Your task to perform on an android device: set an alarm Image 0: 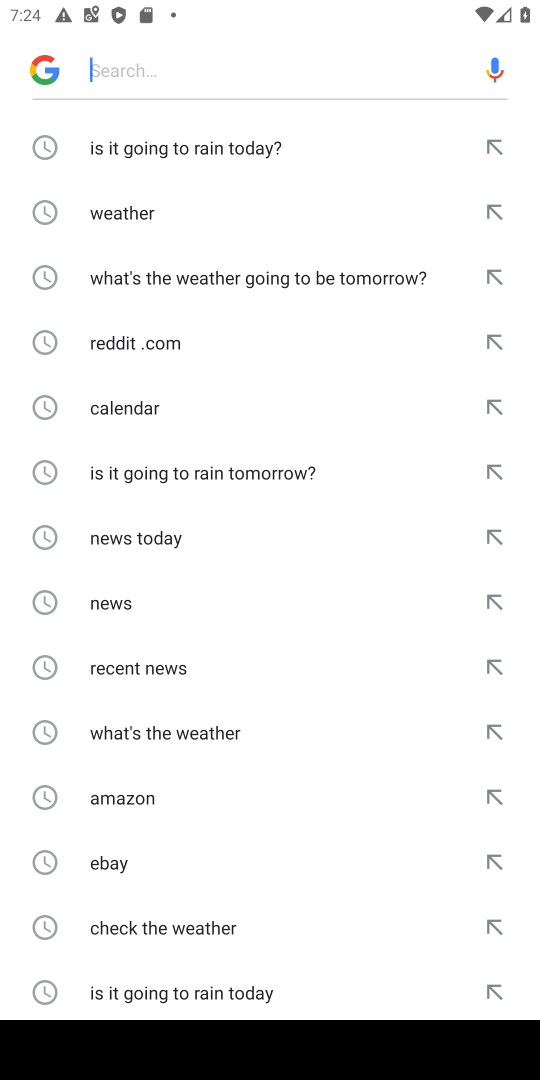
Step 0: press home button
Your task to perform on an android device: set an alarm Image 1: 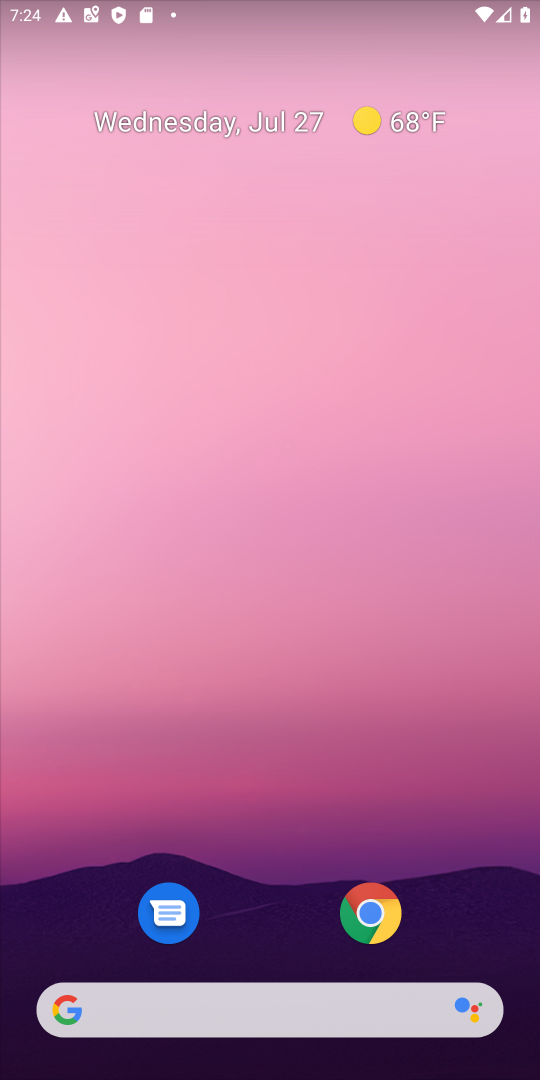
Step 1: drag from (193, 1061) to (486, 121)
Your task to perform on an android device: set an alarm Image 2: 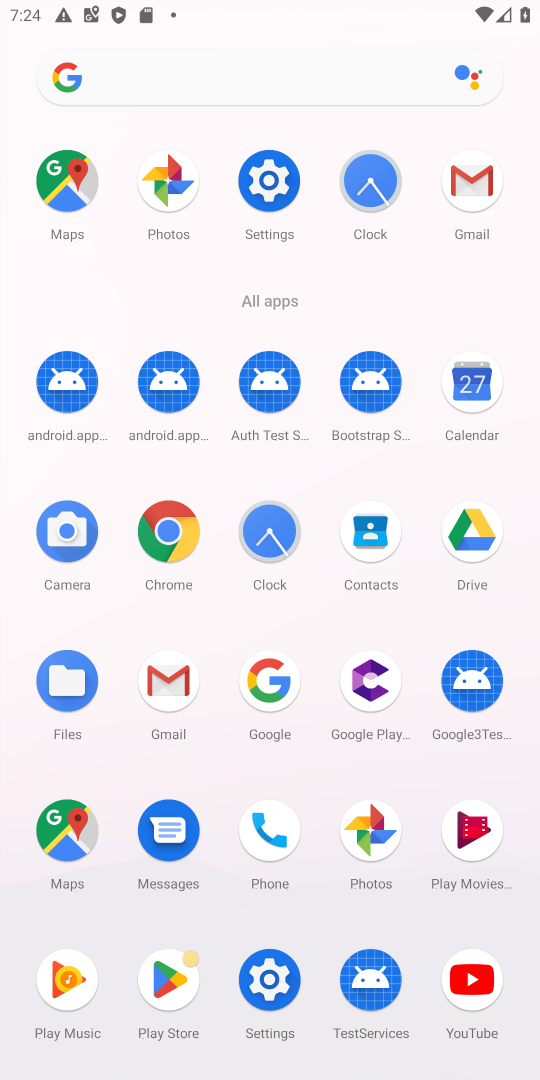
Step 2: click (242, 535)
Your task to perform on an android device: set an alarm Image 3: 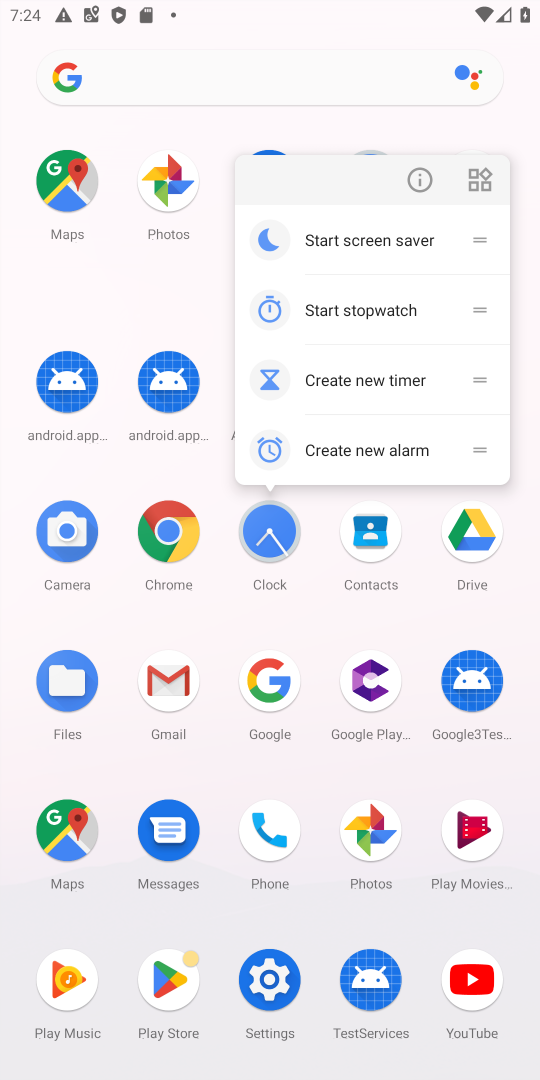
Step 3: click (242, 535)
Your task to perform on an android device: set an alarm Image 4: 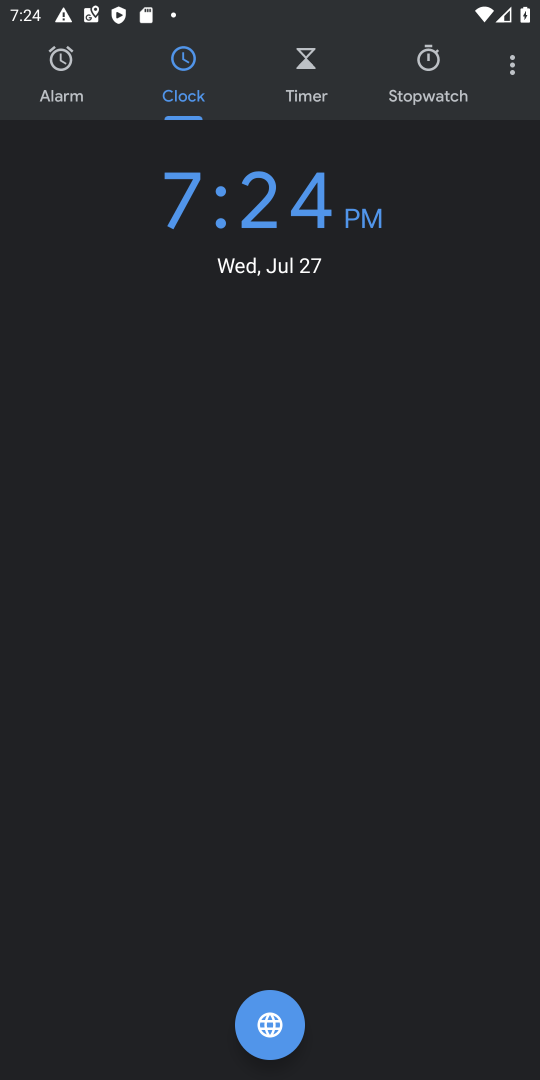
Step 4: click (52, 57)
Your task to perform on an android device: set an alarm Image 5: 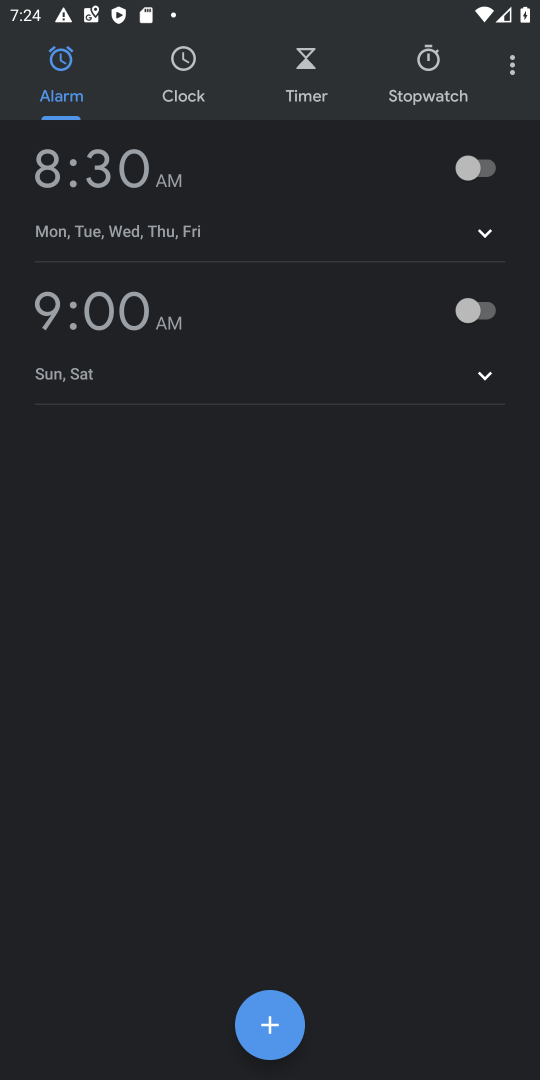
Step 5: click (261, 1016)
Your task to perform on an android device: set an alarm Image 6: 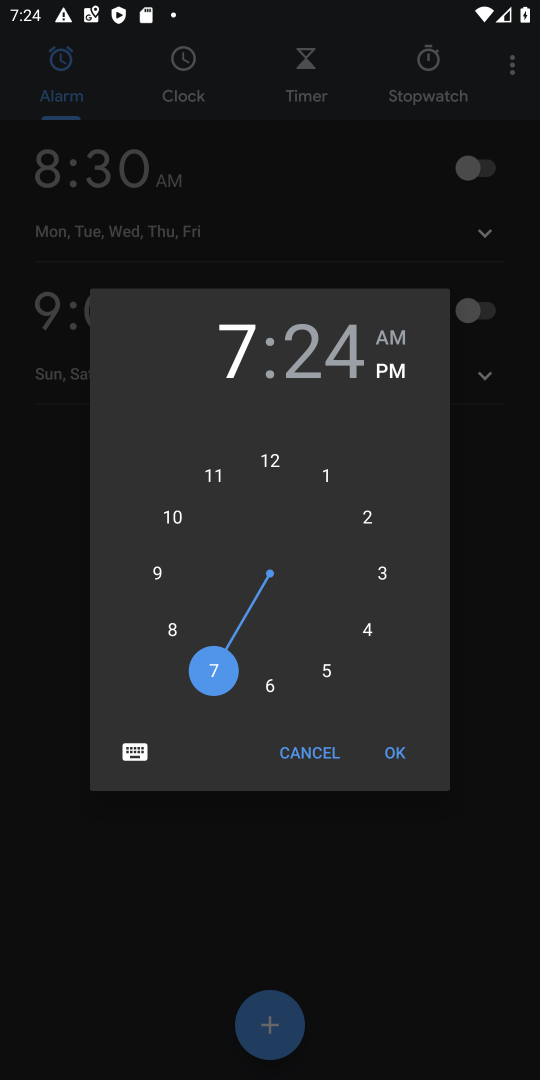
Step 6: click (398, 755)
Your task to perform on an android device: set an alarm Image 7: 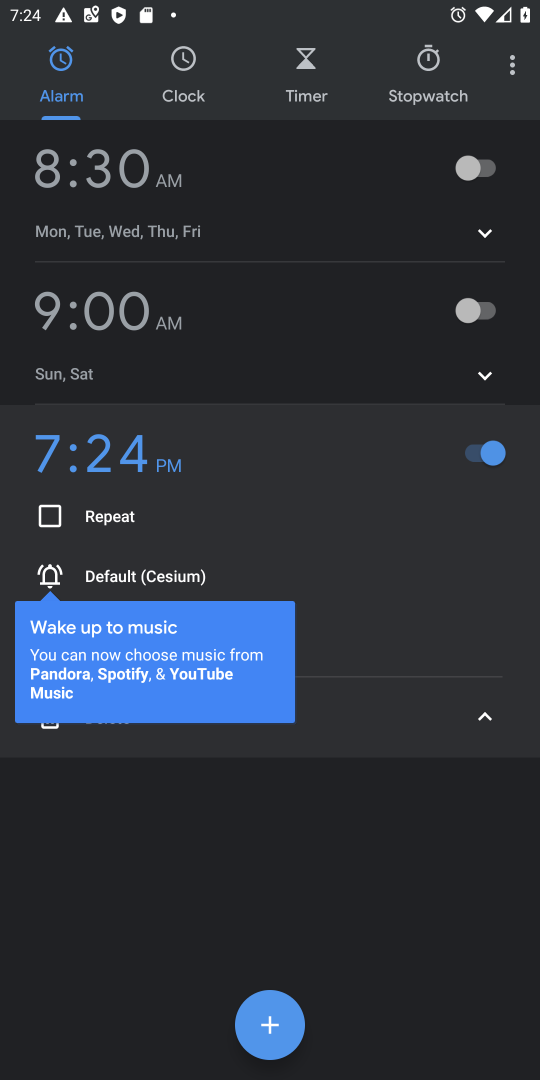
Step 7: task complete